Your task to perform on an android device: Open maps Image 0: 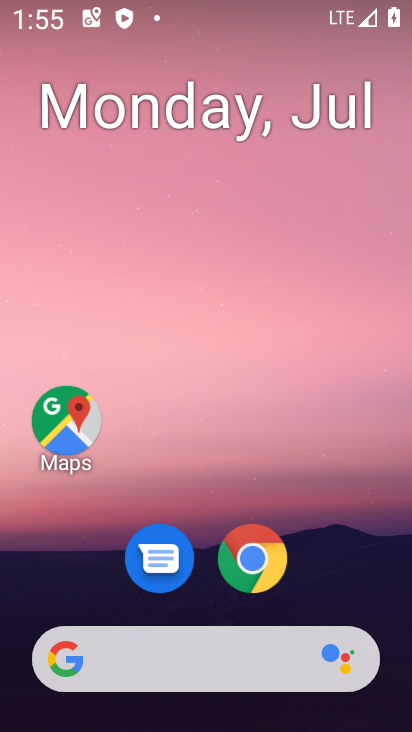
Step 0: drag from (359, 563) to (378, 171)
Your task to perform on an android device: Open maps Image 1: 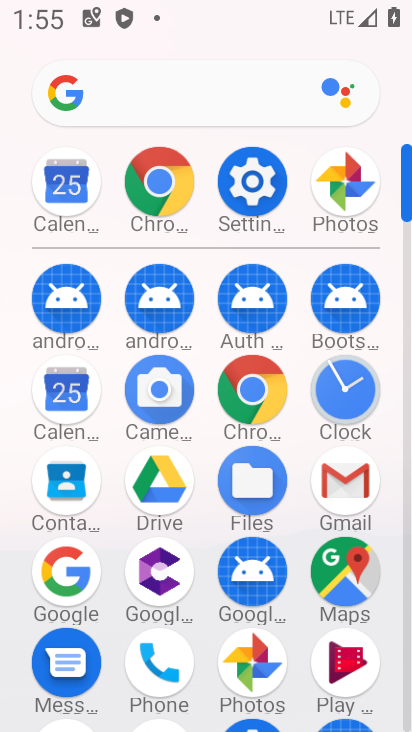
Step 1: click (345, 565)
Your task to perform on an android device: Open maps Image 2: 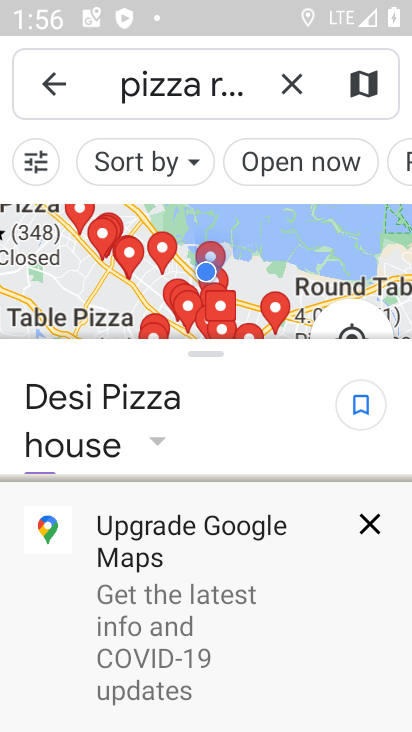
Step 2: task complete